Your task to perform on an android device: turn on wifi Image 0: 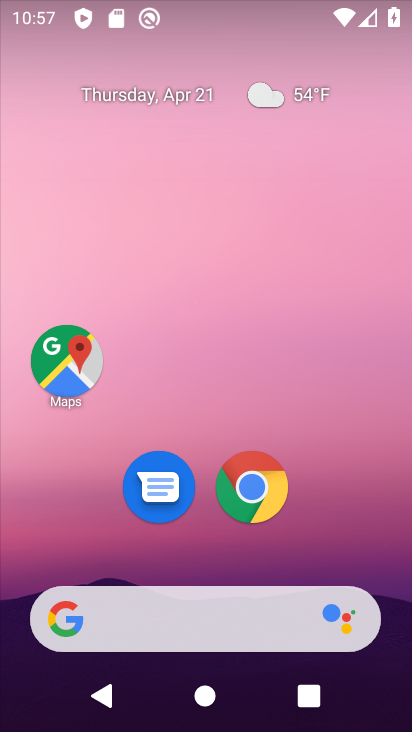
Step 0: drag from (366, 533) to (347, 173)
Your task to perform on an android device: turn on wifi Image 1: 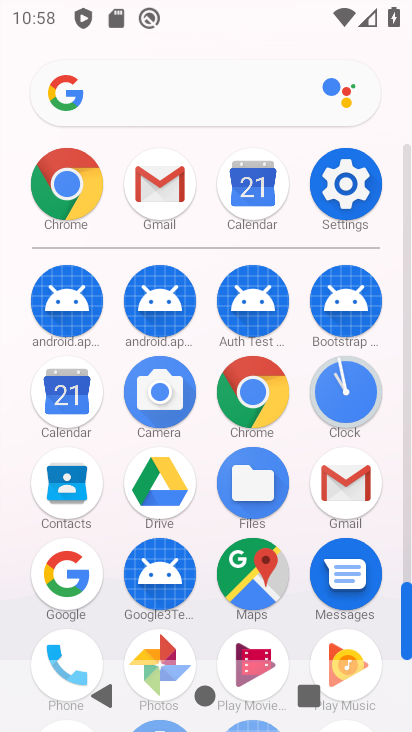
Step 1: click (338, 208)
Your task to perform on an android device: turn on wifi Image 2: 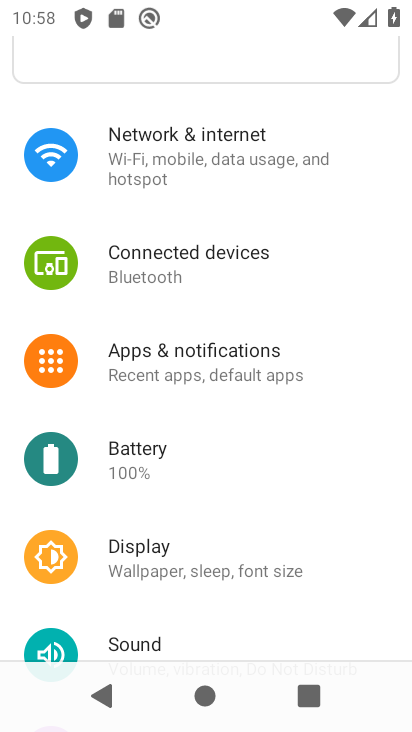
Step 2: click (212, 156)
Your task to perform on an android device: turn on wifi Image 3: 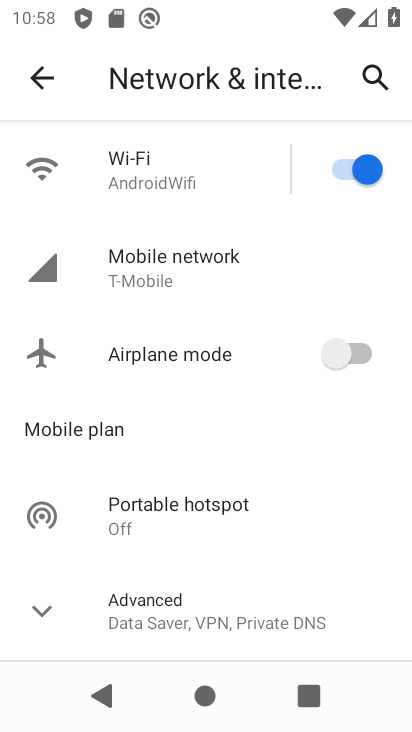
Step 3: task complete